Your task to perform on an android device: Go to settings Image 0: 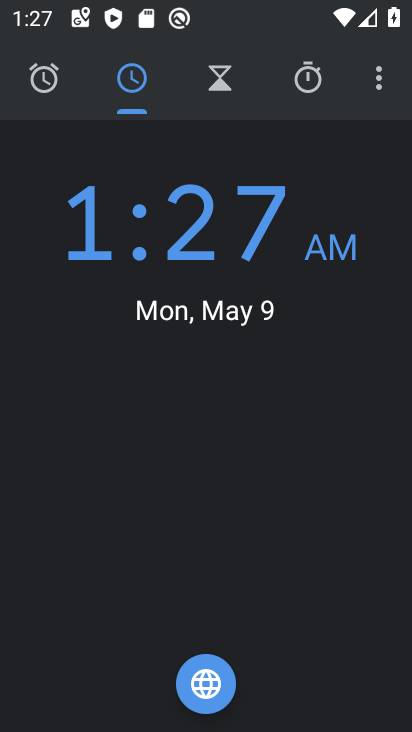
Step 0: press home button
Your task to perform on an android device: Go to settings Image 1: 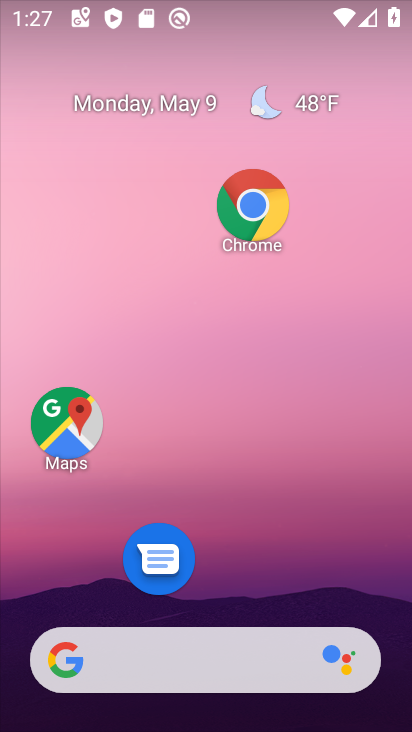
Step 1: drag from (285, 569) to (325, 314)
Your task to perform on an android device: Go to settings Image 2: 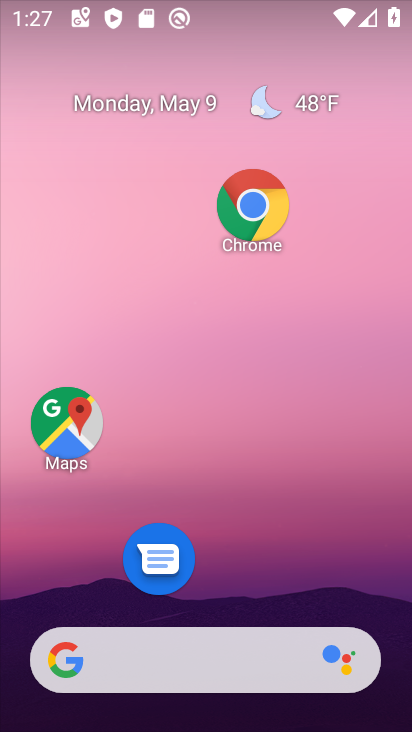
Step 2: drag from (338, 441) to (350, 263)
Your task to perform on an android device: Go to settings Image 3: 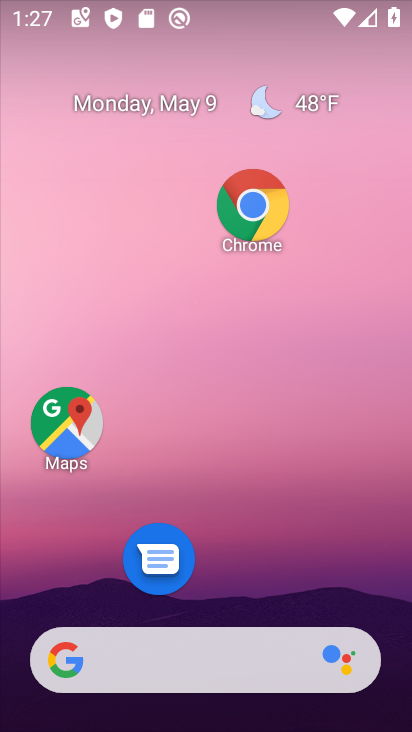
Step 3: drag from (284, 593) to (335, 216)
Your task to perform on an android device: Go to settings Image 4: 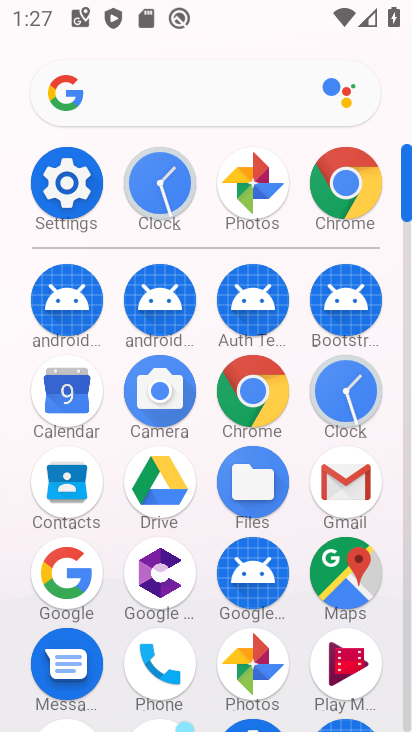
Step 4: click (57, 182)
Your task to perform on an android device: Go to settings Image 5: 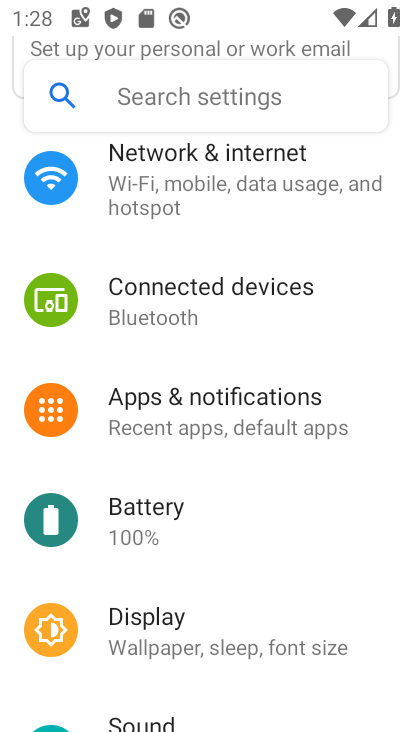
Step 5: task complete